Your task to perform on an android device: set an alarm Image 0: 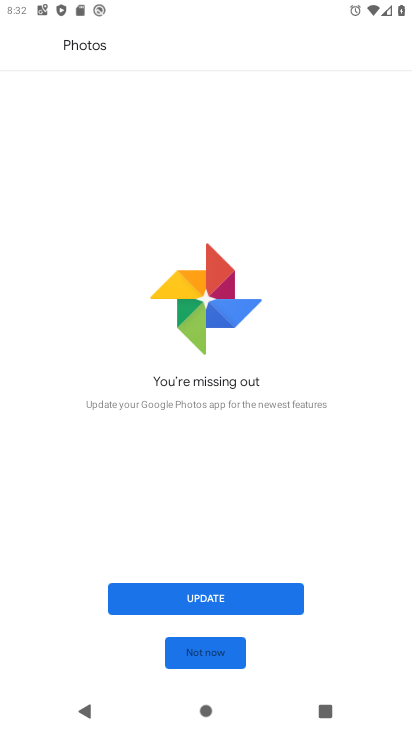
Step 0: press home button
Your task to perform on an android device: set an alarm Image 1: 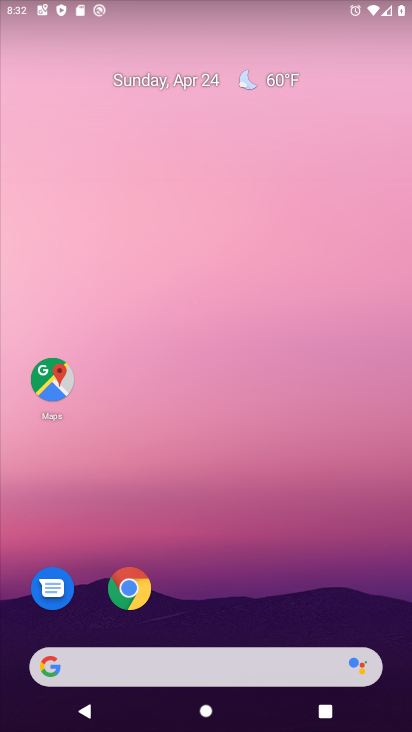
Step 1: drag from (260, 547) to (138, 18)
Your task to perform on an android device: set an alarm Image 2: 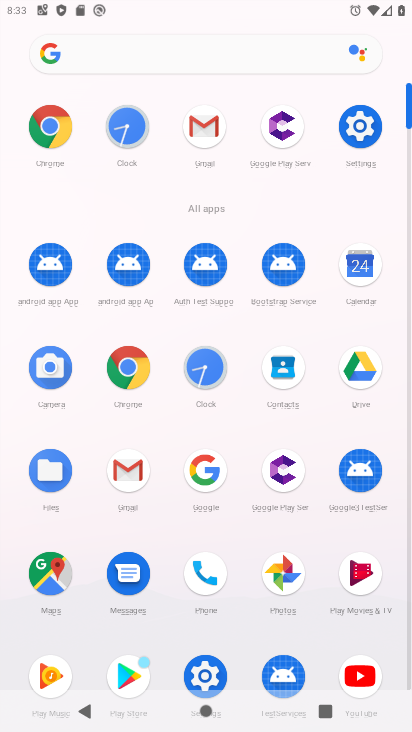
Step 2: click (207, 367)
Your task to perform on an android device: set an alarm Image 3: 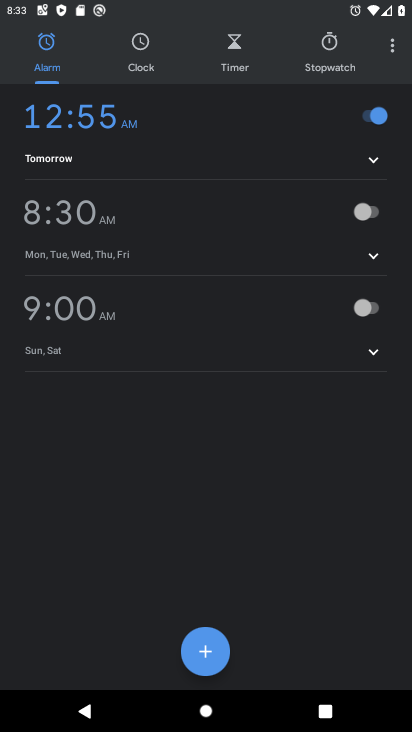
Step 3: click (203, 649)
Your task to perform on an android device: set an alarm Image 4: 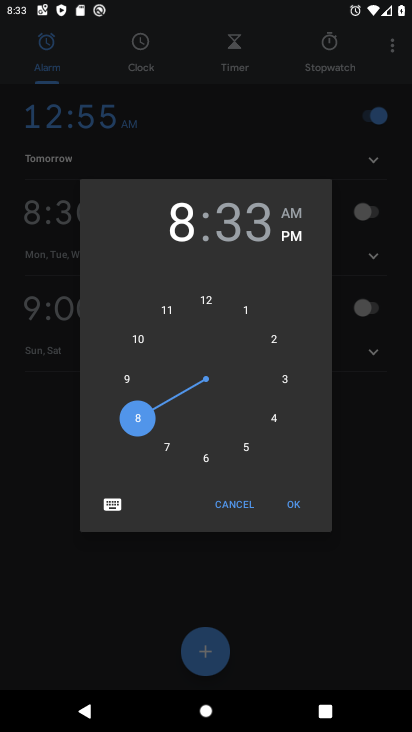
Step 4: click (285, 378)
Your task to perform on an android device: set an alarm Image 5: 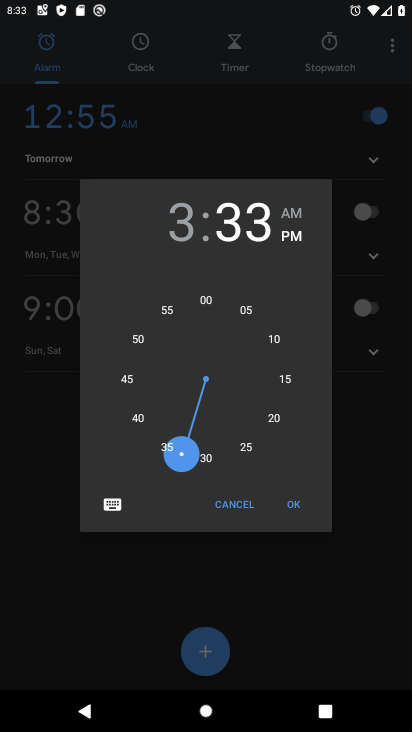
Step 5: click (285, 378)
Your task to perform on an android device: set an alarm Image 6: 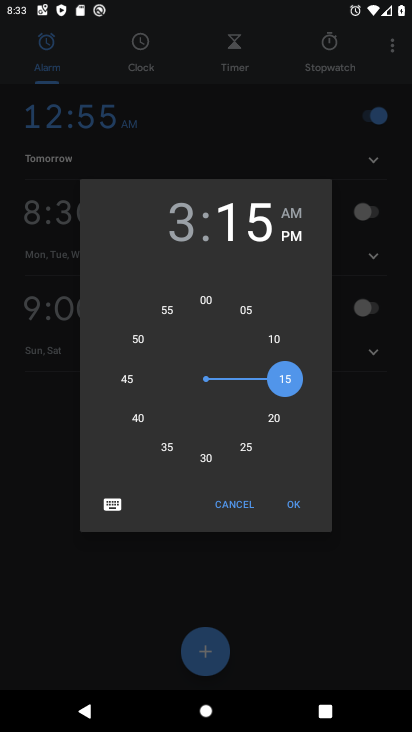
Step 6: click (296, 216)
Your task to perform on an android device: set an alarm Image 7: 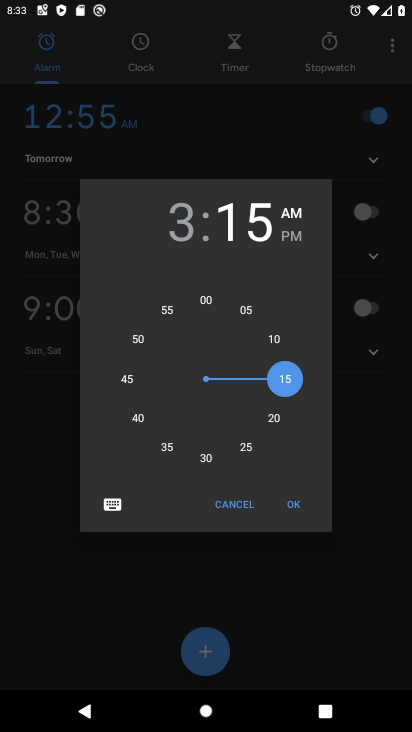
Step 7: click (303, 501)
Your task to perform on an android device: set an alarm Image 8: 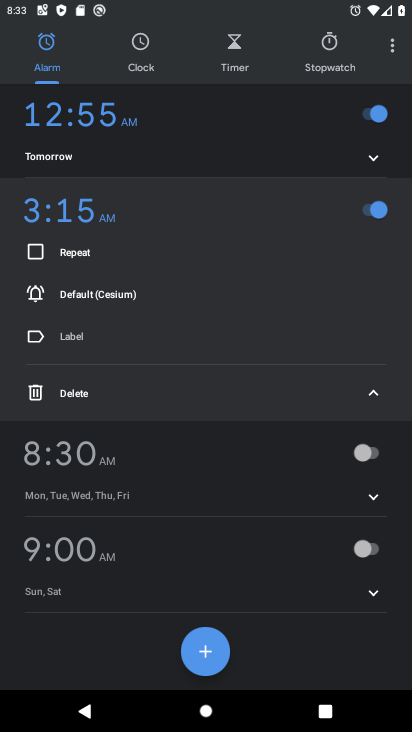
Step 8: click (374, 392)
Your task to perform on an android device: set an alarm Image 9: 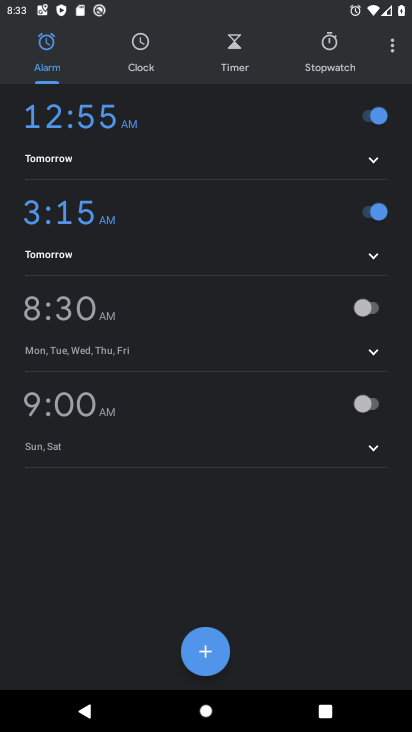
Step 9: task complete